Your task to perform on an android device: Open Amazon Image 0: 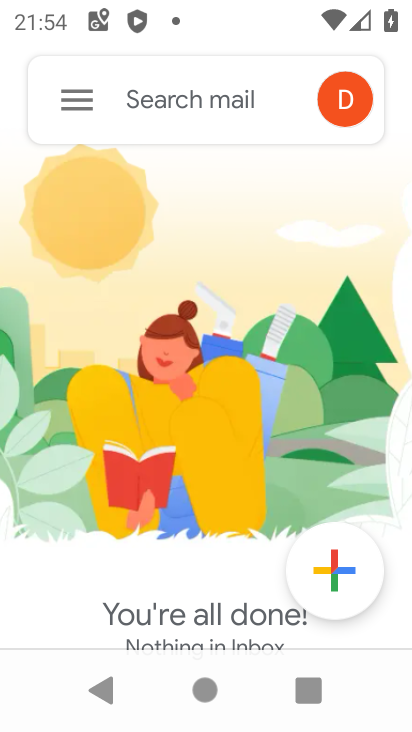
Step 0: press home button
Your task to perform on an android device: Open Amazon Image 1: 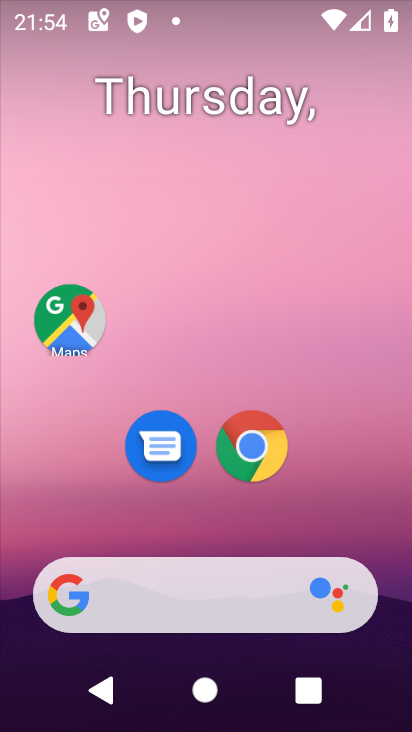
Step 1: click (265, 451)
Your task to perform on an android device: Open Amazon Image 2: 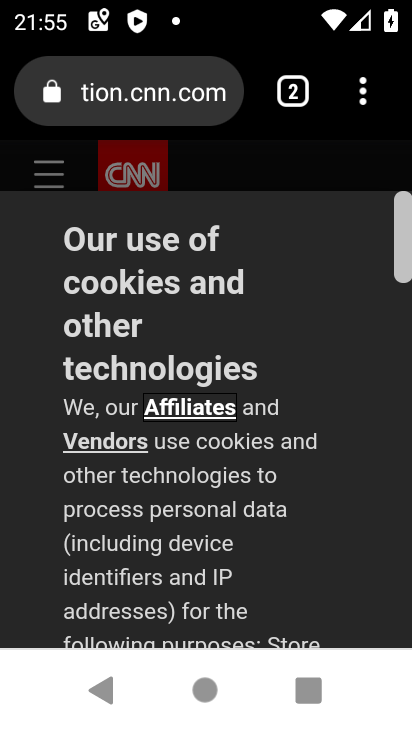
Step 2: drag from (368, 92) to (160, 175)
Your task to perform on an android device: Open Amazon Image 3: 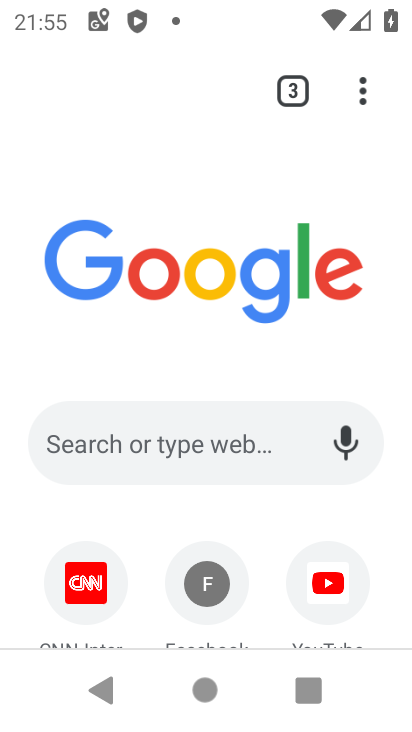
Step 3: drag from (246, 546) to (257, 325)
Your task to perform on an android device: Open Amazon Image 4: 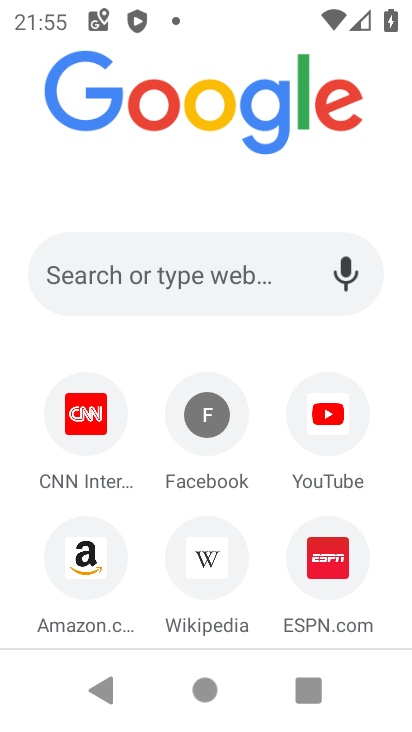
Step 4: click (67, 560)
Your task to perform on an android device: Open Amazon Image 5: 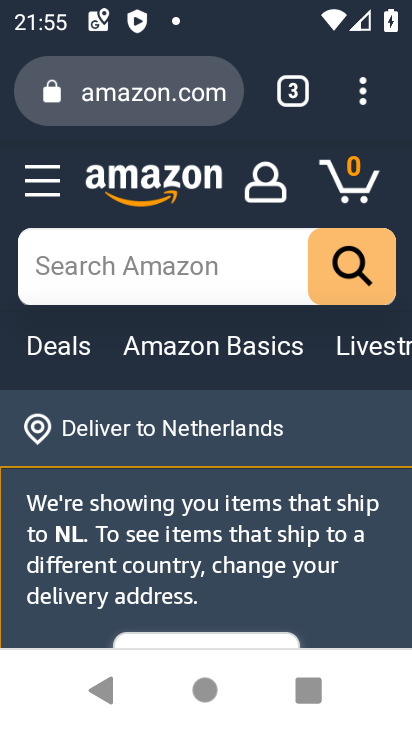
Step 5: task complete